Your task to perform on an android device: Go to ESPN.com Image 0: 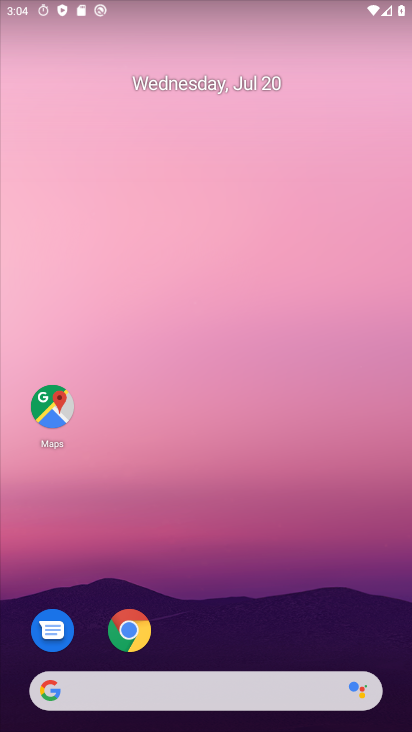
Step 0: drag from (307, 393) to (306, 154)
Your task to perform on an android device: Go to ESPN.com Image 1: 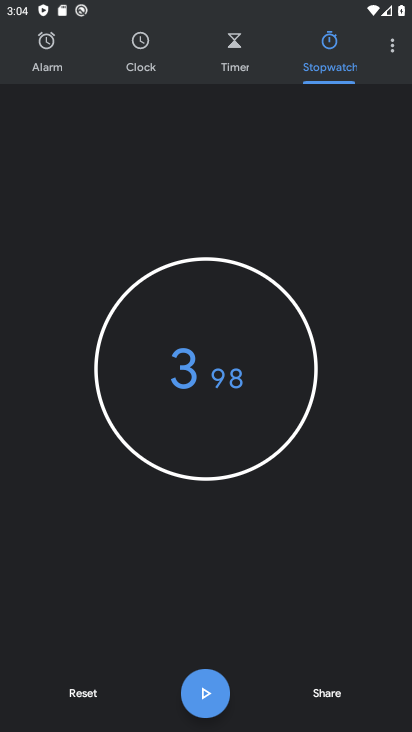
Step 1: press back button
Your task to perform on an android device: Go to ESPN.com Image 2: 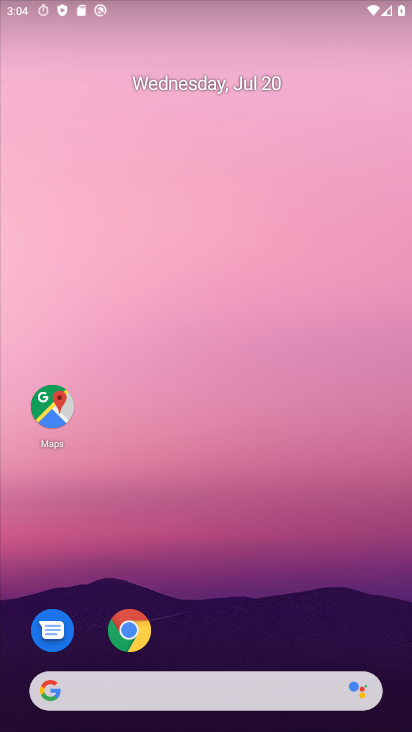
Step 2: drag from (129, 454) to (84, 283)
Your task to perform on an android device: Go to ESPN.com Image 3: 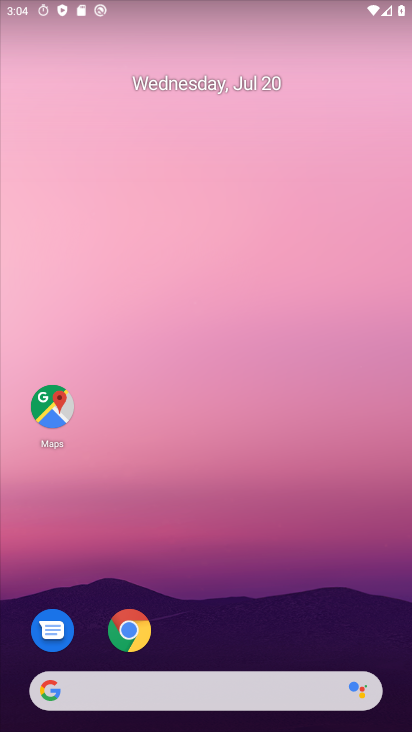
Step 3: drag from (274, 525) to (224, 224)
Your task to perform on an android device: Go to ESPN.com Image 4: 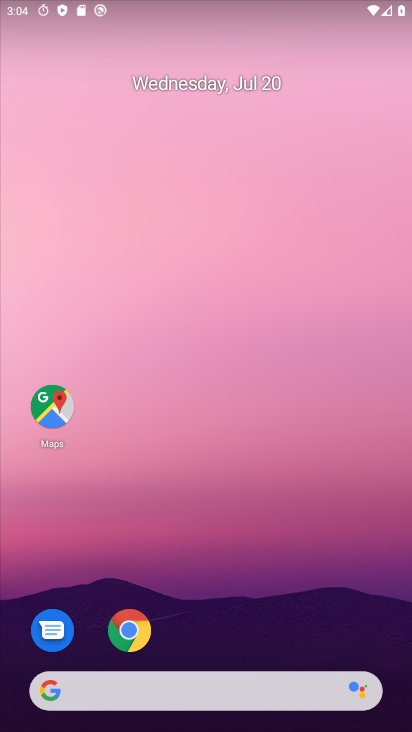
Step 4: drag from (232, 484) to (182, 127)
Your task to perform on an android device: Go to ESPN.com Image 5: 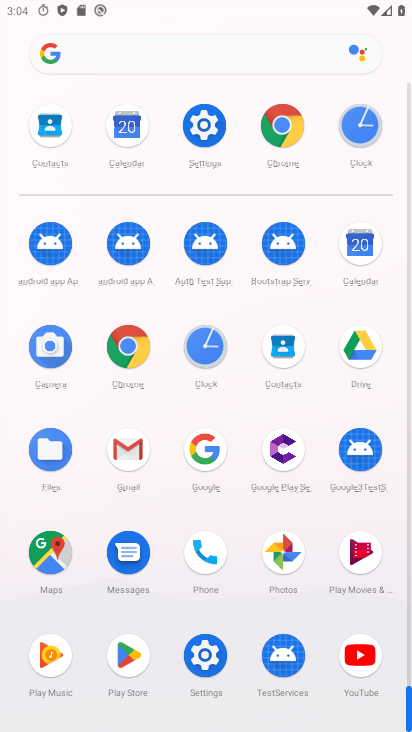
Step 5: click (288, 111)
Your task to perform on an android device: Go to ESPN.com Image 6: 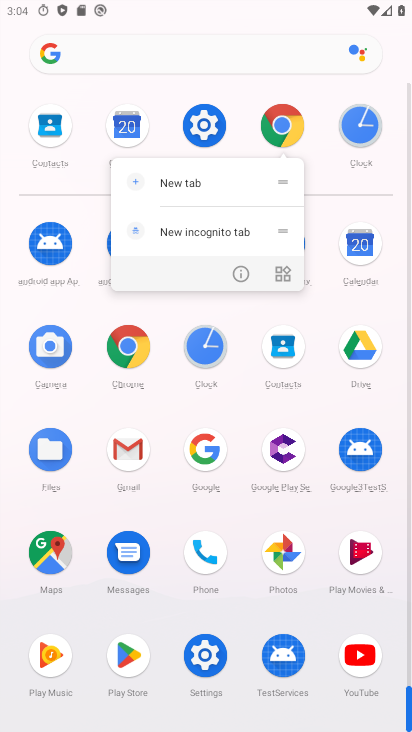
Step 6: click (273, 125)
Your task to perform on an android device: Go to ESPN.com Image 7: 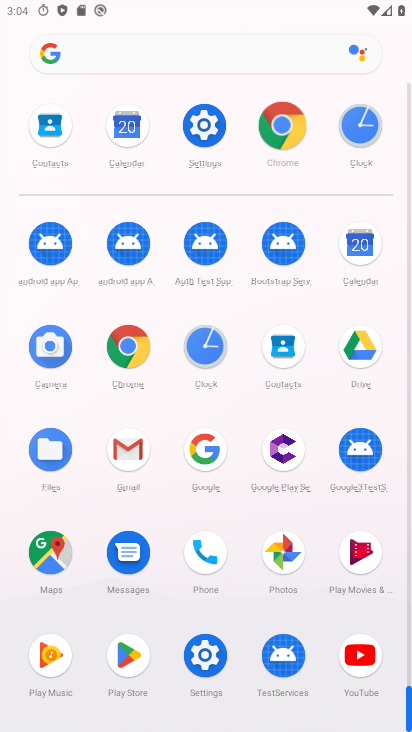
Step 7: click (273, 125)
Your task to perform on an android device: Go to ESPN.com Image 8: 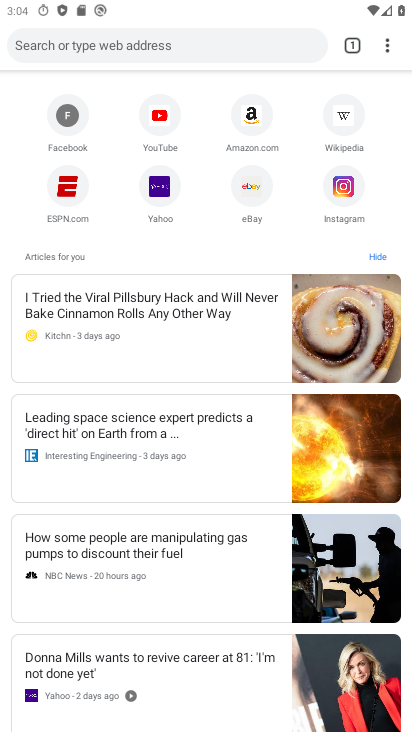
Step 8: click (51, 180)
Your task to perform on an android device: Go to ESPN.com Image 9: 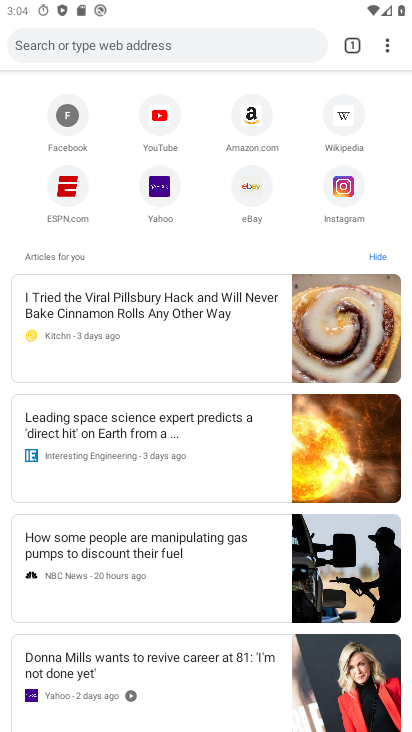
Step 9: click (70, 191)
Your task to perform on an android device: Go to ESPN.com Image 10: 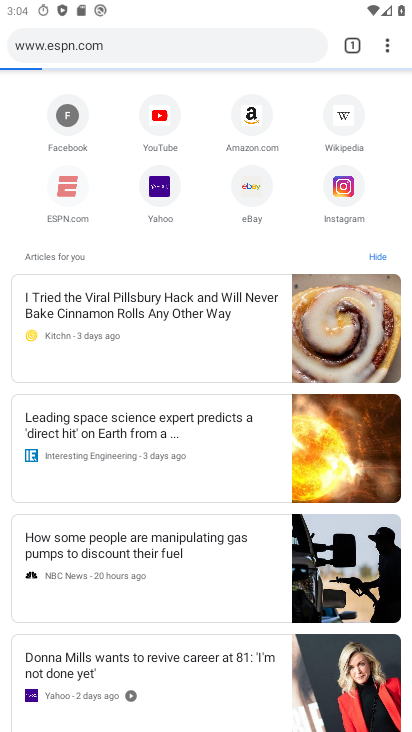
Step 10: click (72, 195)
Your task to perform on an android device: Go to ESPN.com Image 11: 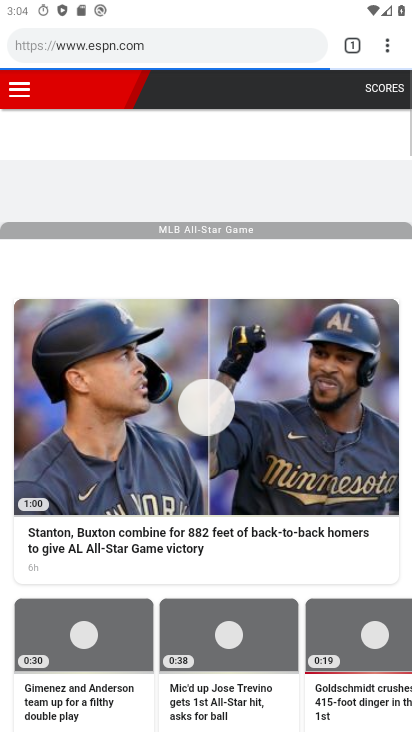
Step 11: task complete